Your task to perform on an android device: open chrome privacy settings Image 0: 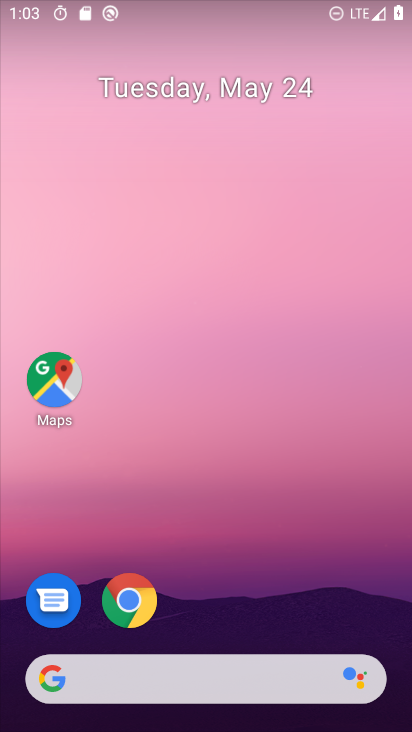
Step 0: drag from (329, 576) to (311, 163)
Your task to perform on an android device: open chrome privacy settings Image 1: 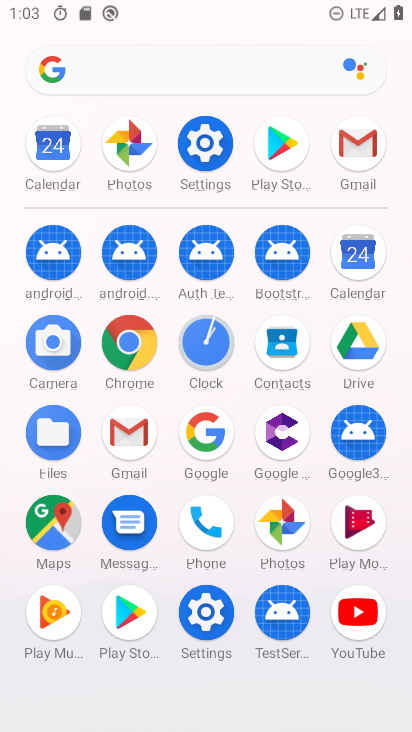
Step 1: click (216, 152)
Your task to perform on an android device: open chrome privacy settings Image 2: 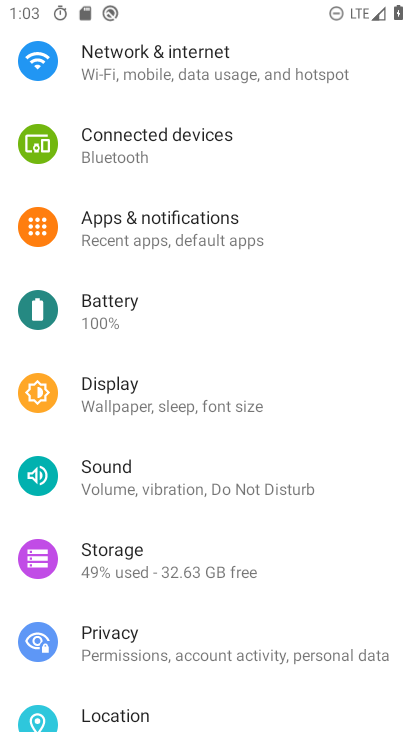
Step 2: drag from (218, 502) to (253, 159)
Your task to perform on an android device: open chrome privacy settings Image 3: 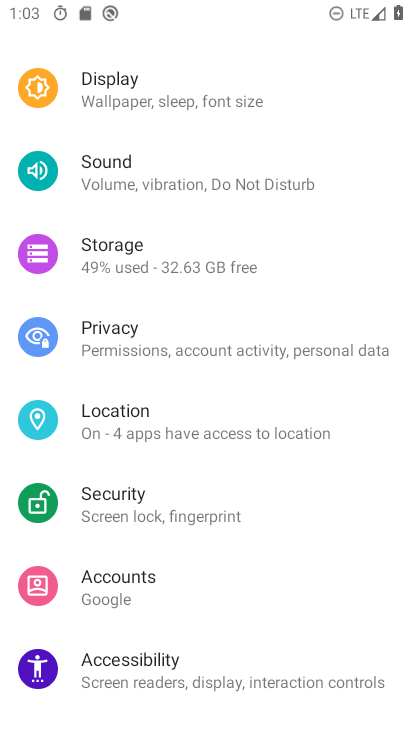
Step 3: press home button
Your task to perform on an android device: open chrome privacy settings Image 4: 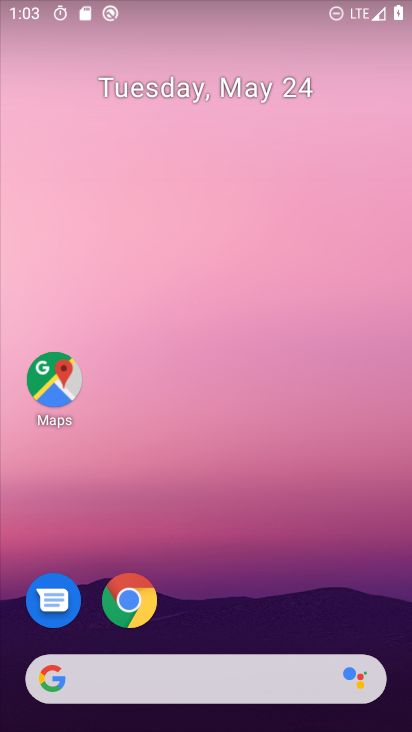
Step 4: click (136, 588)
Your task to perform on an android device: open chrome privacy settings Image 5: 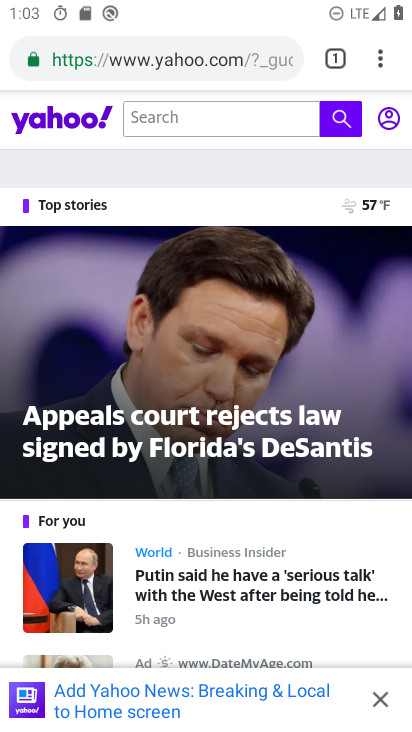
Step 5: click (381, 52)
Your task to perform on an android device: open chrome privacy settings Image 6: 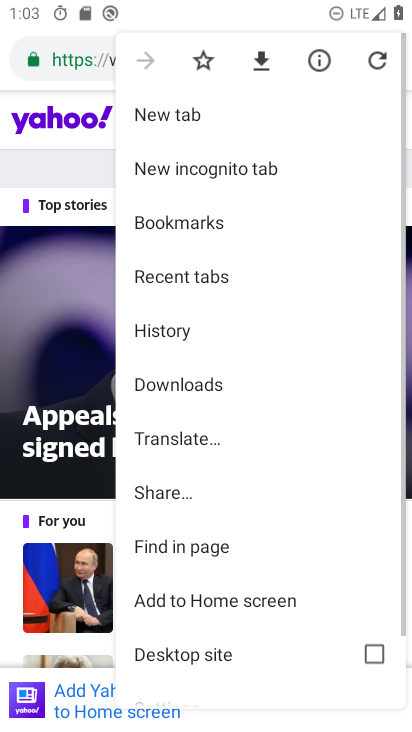
Step 6: drag from (234, 553) to (285, 211)
Your task to perform on an android device: open chrome privacy settings Image 7: 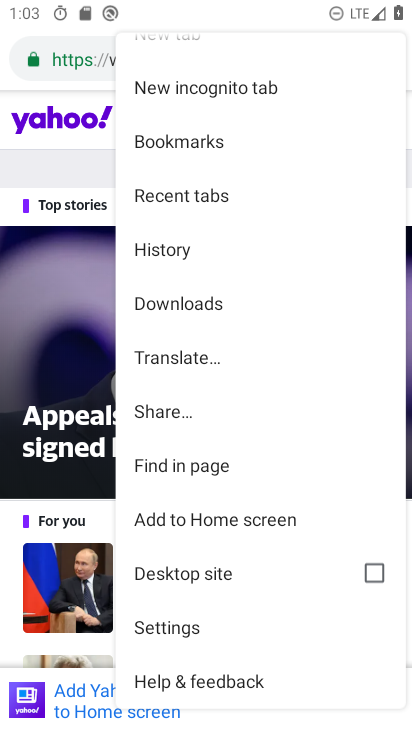
Step 7: click (180, 628)
Your task to perform on an android device: open chrome privacy settings Image 8: 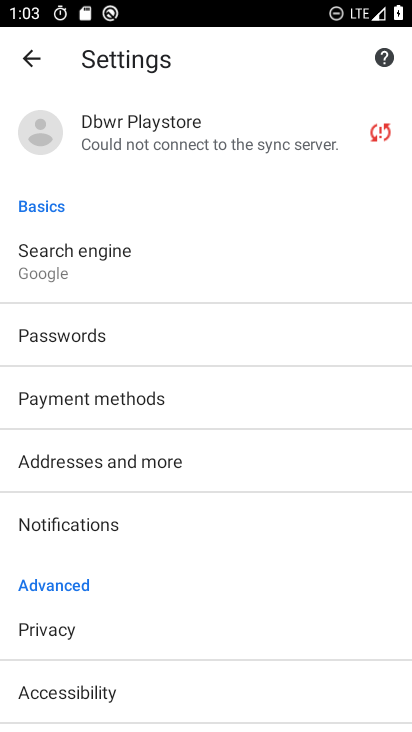
Step 8: drag from (194, 563) to (225, 155)
Your task to perform on an android device: open chrome privacy settings Image 9: 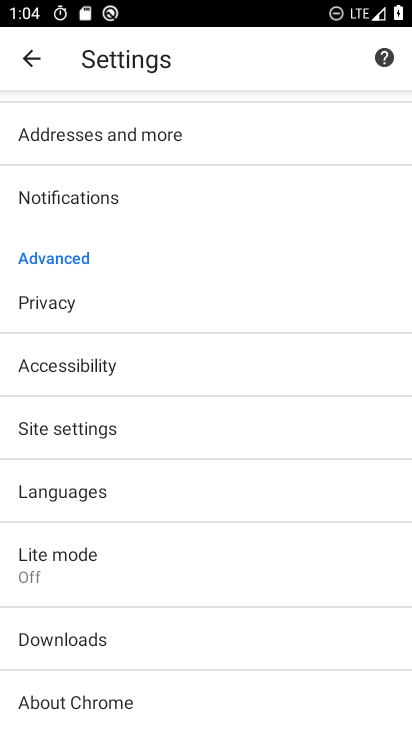
Step 9: click (89, 293)
Your task to perform on an android device: open chrome privacy settings Image 10: 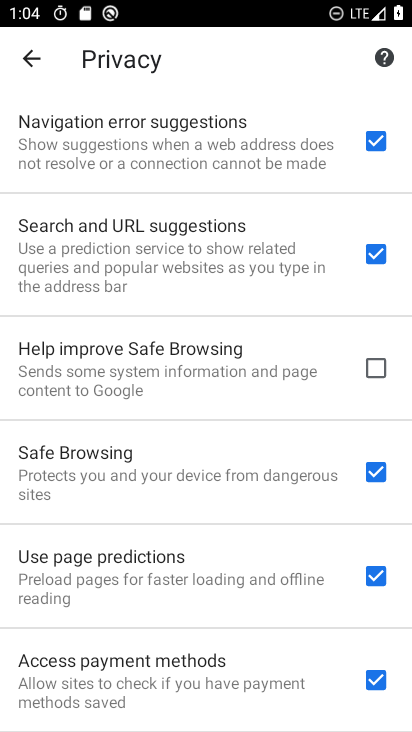
Step 10: task complete